Your task to perform on an android device: Show me productivity apps on the Play Store Image 0: 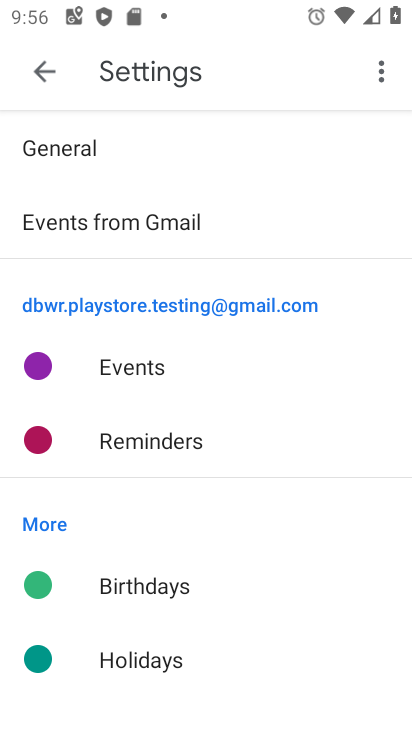
Step 0: press home button
Your task to perform on an android device: Show me productivity apps on the Play Store Image 1: 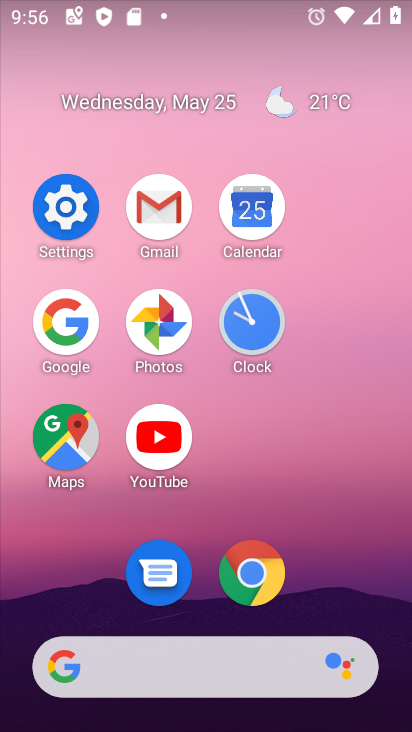
Step 1: drag from (344, 571) to (376, 219)
Your task to perform on an android device: Show me productivity apps on the Play Store Image 2: 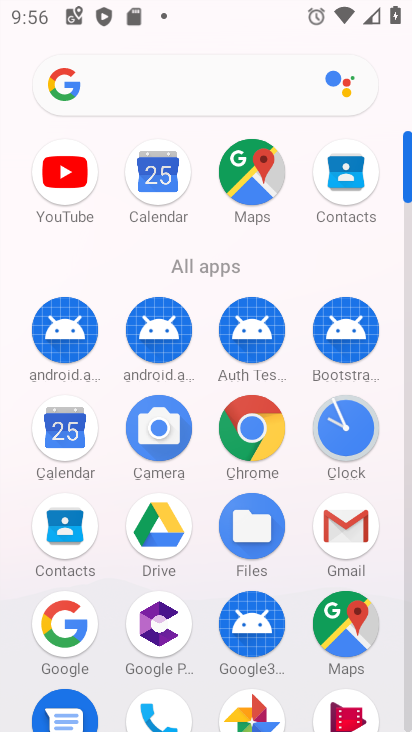
Step 2: drag from (156, 578) to (138, 248)
Your task to perform on an android device: Show me productivity apps on the Play Store Image 3: 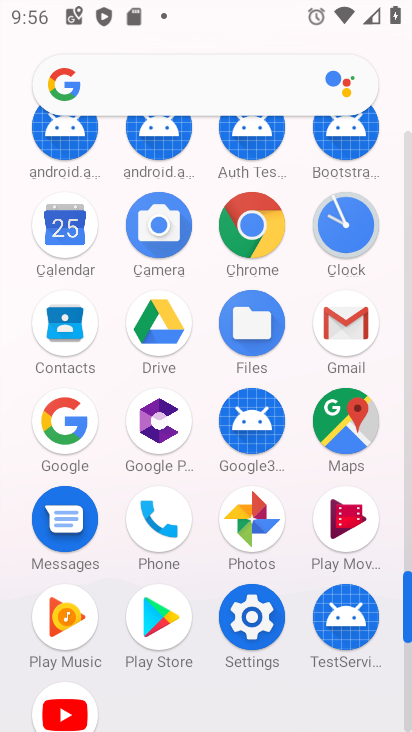
Step 3: click (162, 596)
Your task to perform on an android device: Show me productivity apps on the Play Store Image 4: 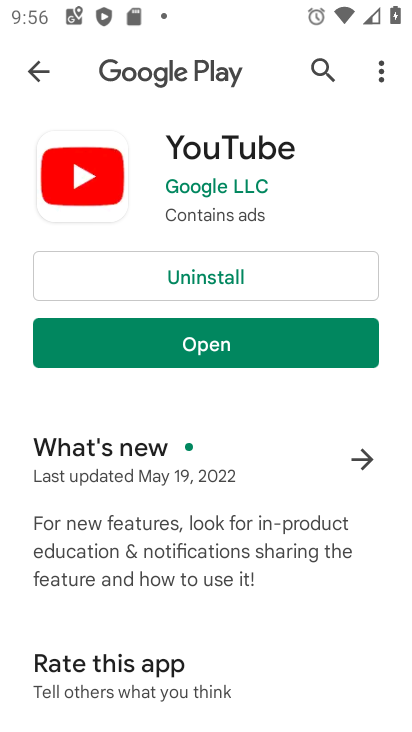
Step 4: click (40, 75)
Your task to perform on an android device: Show me productivity apps on the Play Store Image 5: 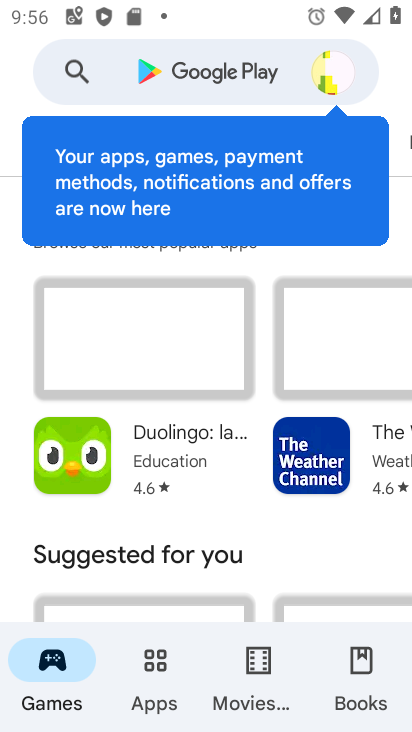
Step 5: click (146, 667)
Your task to perform on an android device: Show me productivity apps on the Play Store Image 6: 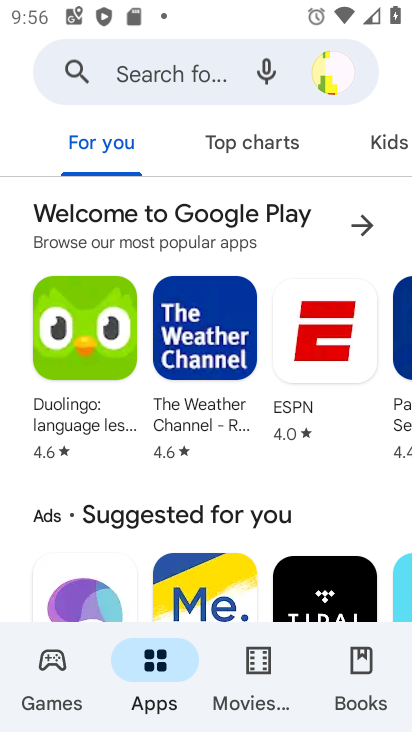
Step 6: drag from (356, 138) to (116, 150)
Your task to perform on an android device: Show me productivity apps on the Play Store Image 7: 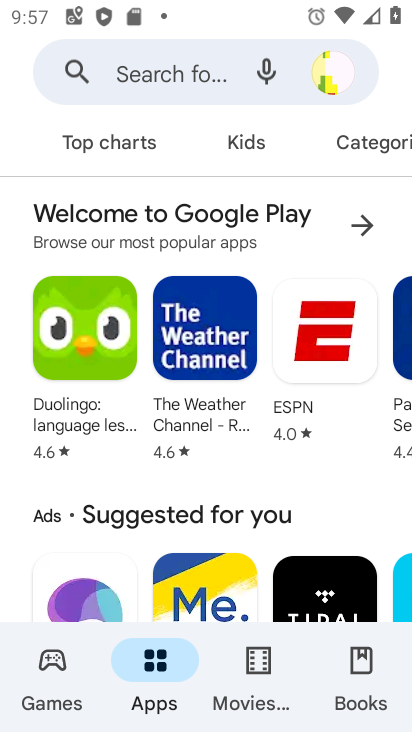
Step 7: click (342, 146)
Your task to perform on an android device: Show me productivity apps on the Play Store Image 8: 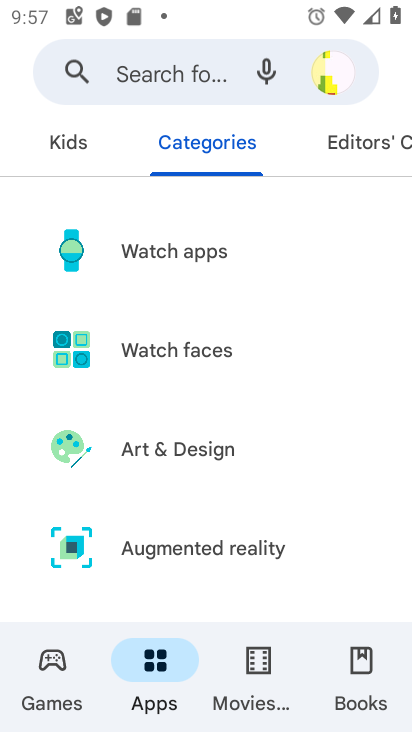
Step 8: drag from (215, 497) to (220, 156)
Your task to perform on an android device: Show me productivity apps on the Play Store Image 9: 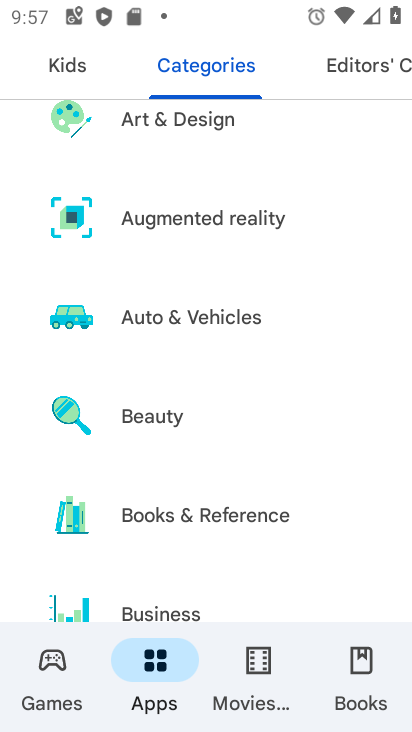
Step 9: drag from (225, 557) to (193, 143)
Your task to perform on an android device: Show me productivity apps on the Play Store Image 10: 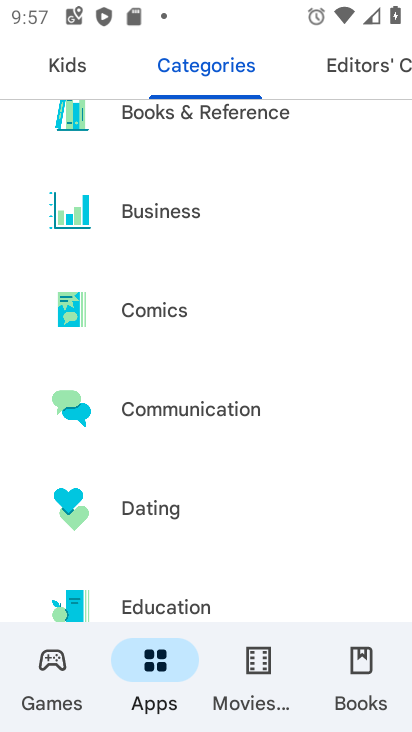
Step 10: drag from (224, 562) to (200, 165)
Your task to perform on an android device: Show me productivity apps on the Play Store Image 11: 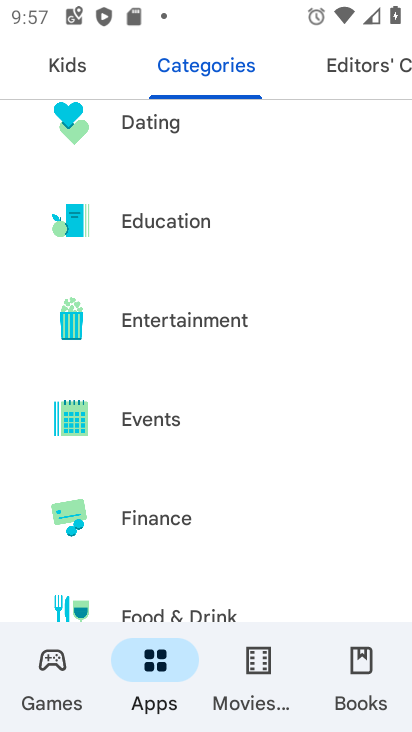
Step 11: drag from (237, 557) to (241, 174)
Your task to perform on an android device: Show me productivity apps on the Play Store Image 12: 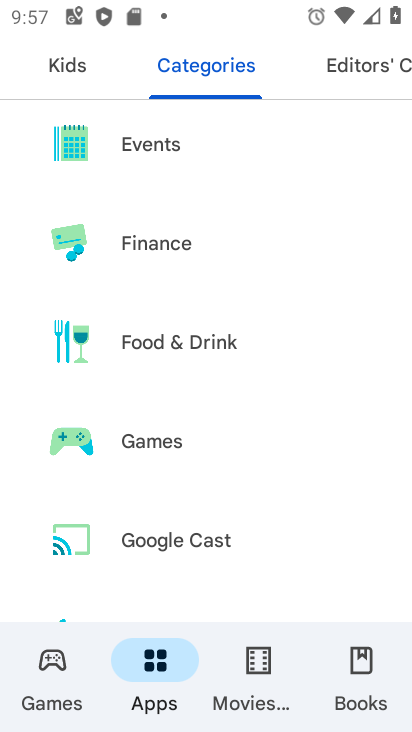
Step 12: drag from (252, 488) to (223, 173)
Your task to perform on an android device: Show me productivity apps on the Play Store Image 13: 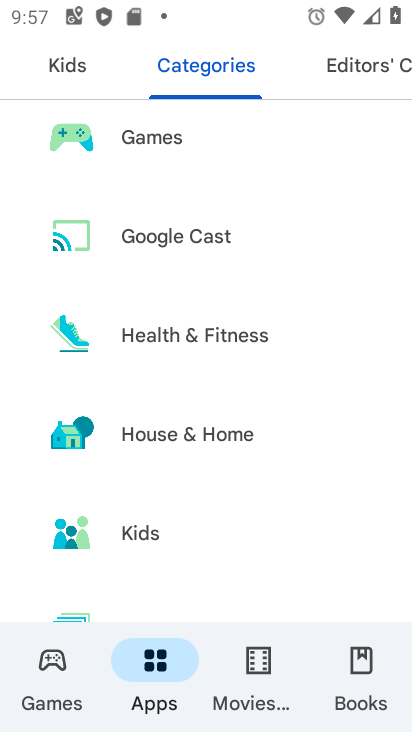
Step 13: drag from (226, 512) to (201, 156)
Your task to perform on an android device: Show me productivity apps on the Play Store Image 14: 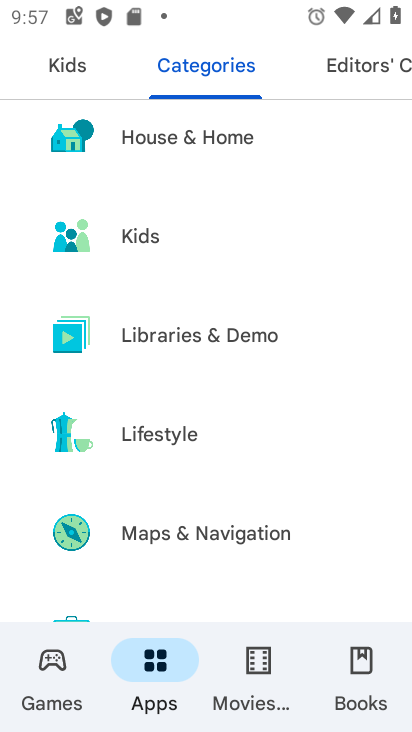
Step 14: drag from (223, 466) to (181, 147)
Your task to perform on an android device: Show me productivity apps on the Play Store Image 15: 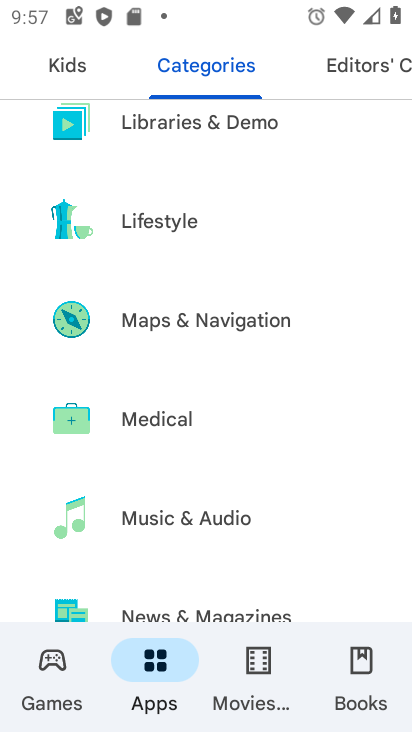
Step 15: drag from (228, 553) to (210, 176)
Your task to perform on an android device: Show me productivity apps on the Play Store Image 16: 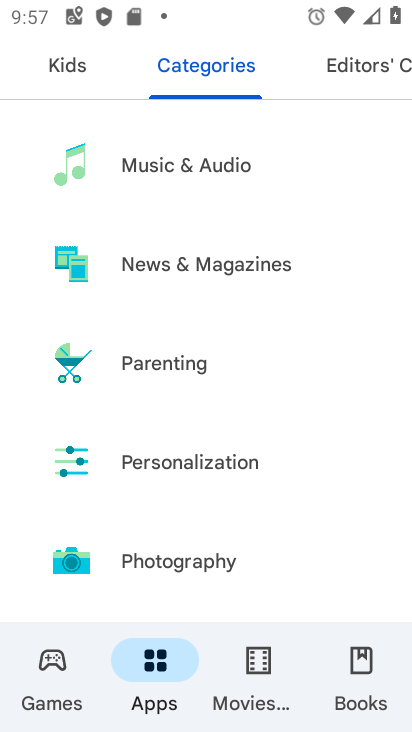
Step 16: drag from (222, 568) to (200, 206)
Your task to perform on an android device: Show me productivity apps on the Play Store Image 17: 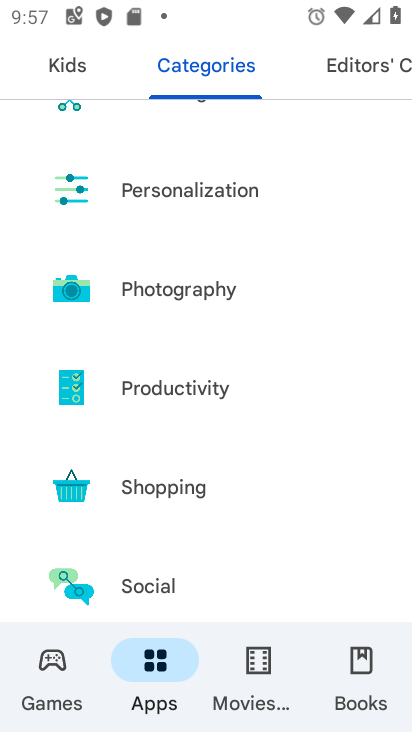
Step 17: click (216, 383)
Your task to perform on an android device: Show me productivity apps on the Play Store Image 18: 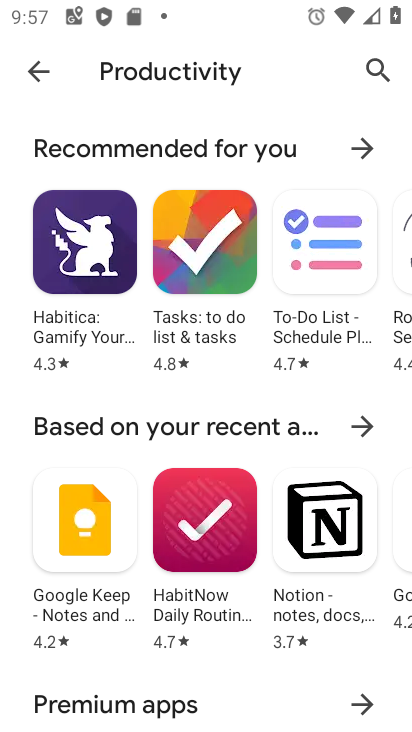
Step 18: task complete